Your task to perform on an android device: What's the weather? Image 0: 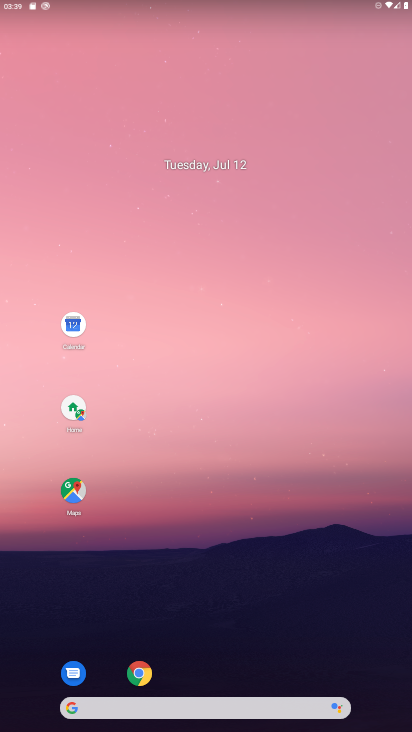
Step 0: click (137, 672)
Your task to perform on an android device: What's the weather? Image 1: 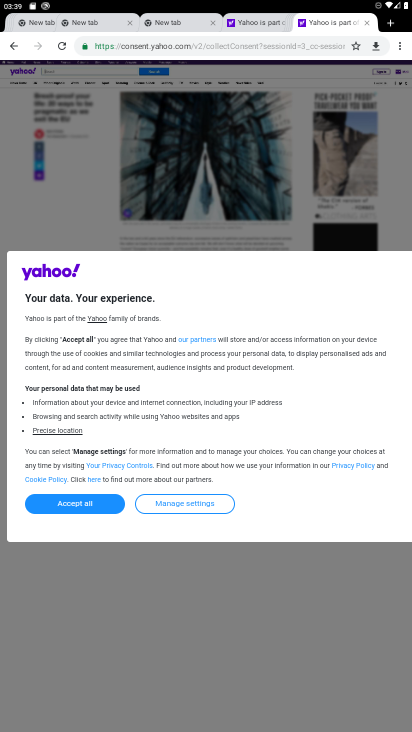
Step 1: click (97, 502)
Your task to perform on an android device: What's the weather? Image 2: 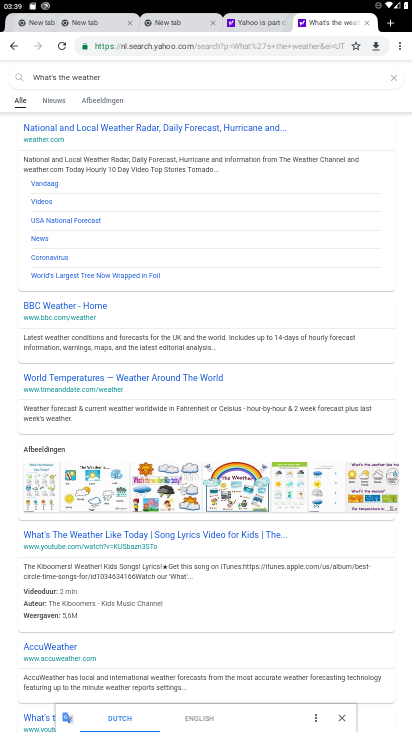
Step 2: task complete